Your task to perform on an android device: Open Google Image 0: 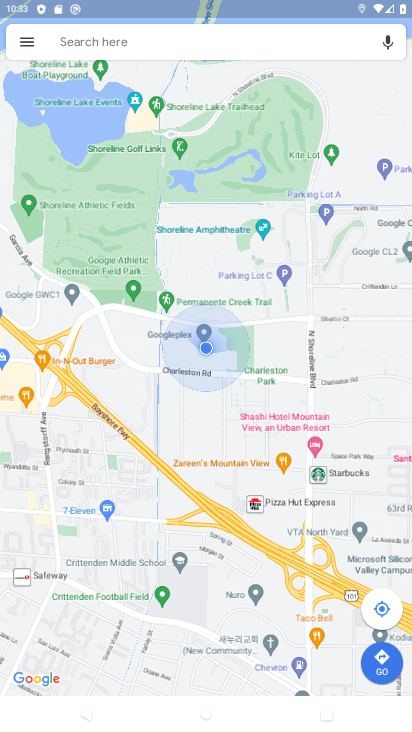
Step 0: press home button
Your task to perform on an android device: Open Google Image 1: 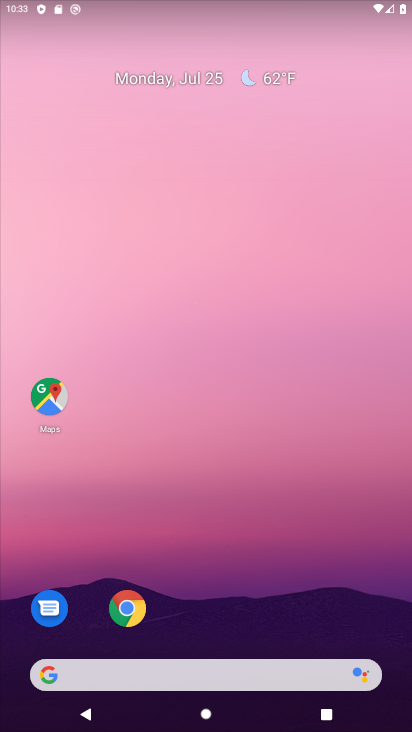
Step 1: drag from (217, 302) to (217, 245)
Your task to perform on an android device: Open Google Image 2: 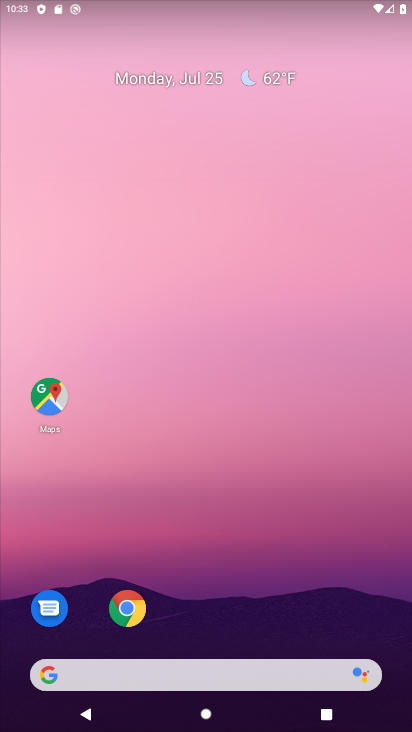
Step 2: drag from (240, 662) to (207, 244)
Your task to perform on an android device: Open Google Image 3: 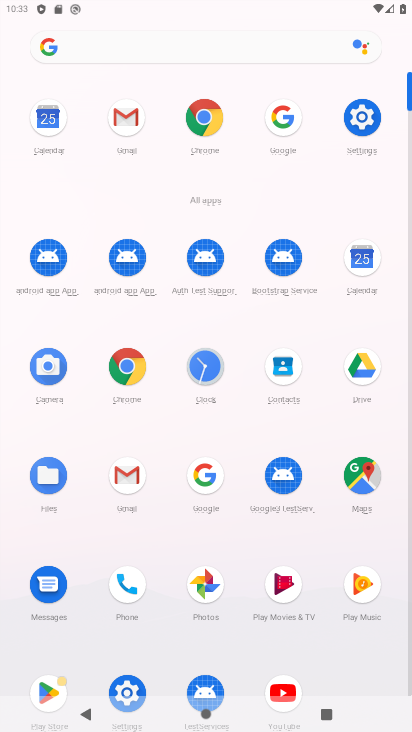
Step 3: click (281, 110)
Your task to perform on an android device: Open Google Image 4: 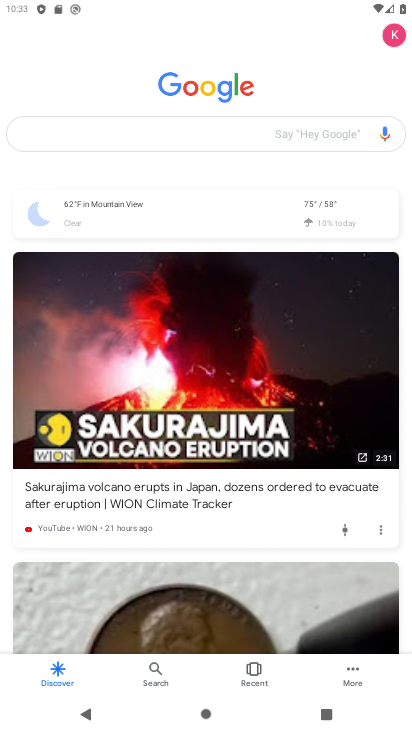
Step 4: task complete